Your task to perform on an android device: Open Chrome and go to settings Image 0: 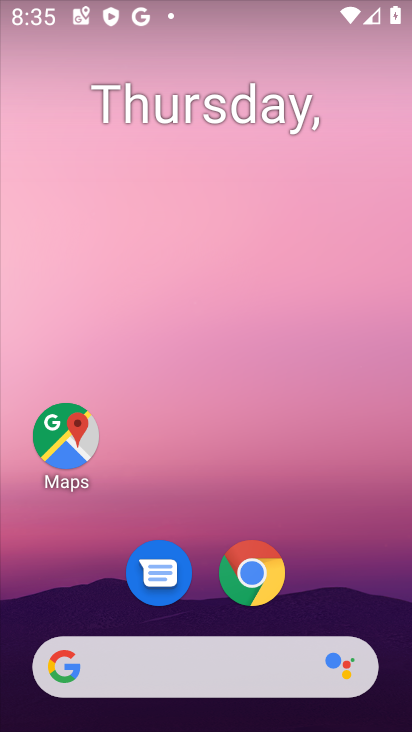
Step 0: drag from (333, 599) to (305, 178)
Your task to perform on an android device: Open Chrome and go to settings Image 1: 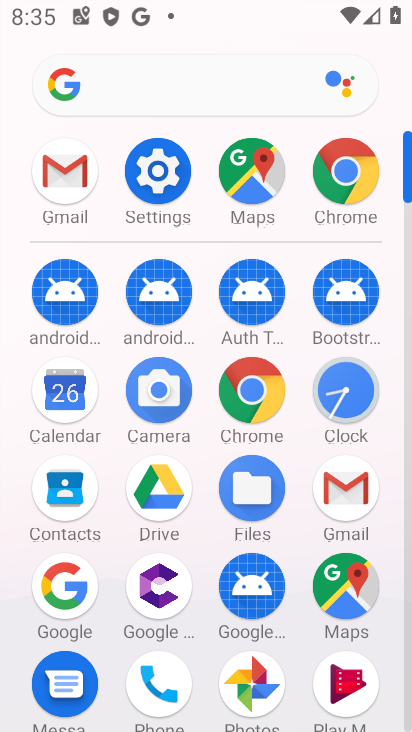
Step 1: click (163, 195)
Your task to perform on an android device: Open Chrome and go to settings Image 2: 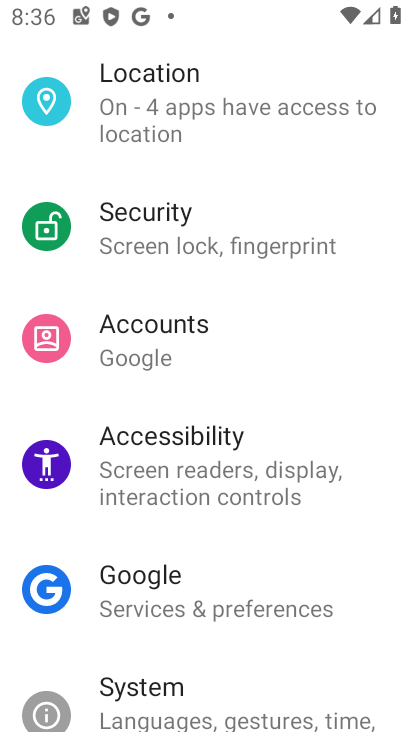
Step 2: drag from (199, 176) to (265, 680)
Your task to perform on an android device: Open Chrome and go to settings Image 3: 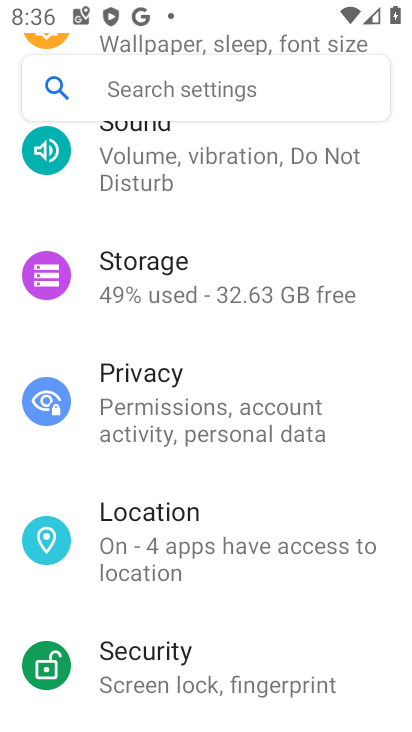
Step 3: drag from (245, 228) to (267, 648)
Your task to perform on an android device: Open Chrome and go to settings Image 4: 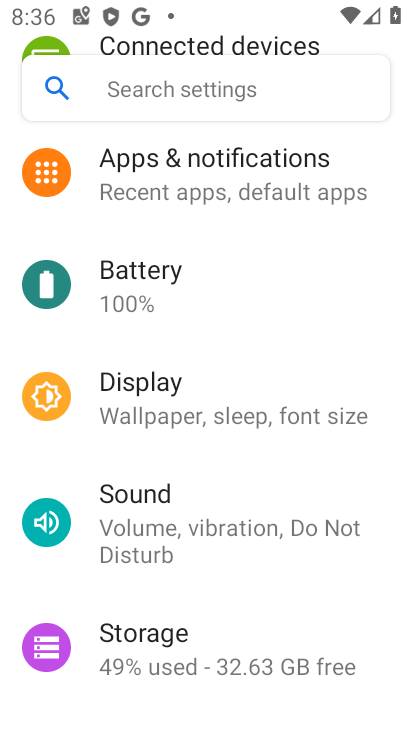
Step 4: drag from (266, 281) to (254, 636)
Your task to perform on an android device: Open Chrome and go to settings Image 5: 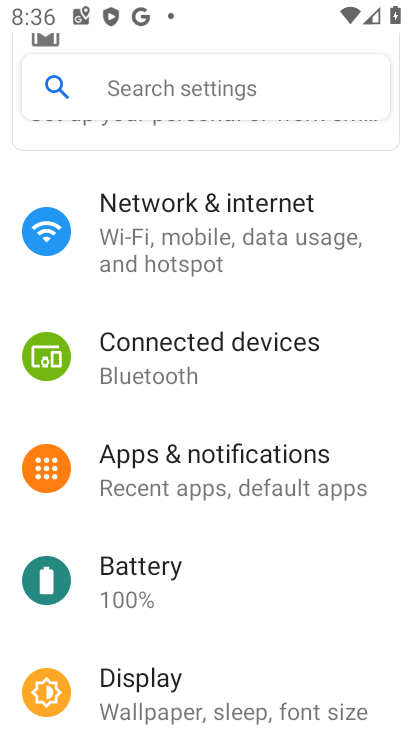
Step 5: drag from (253, 296) to (256, 614)
Your task to perform on an android device: Open Chrome and go to settings Image 6: 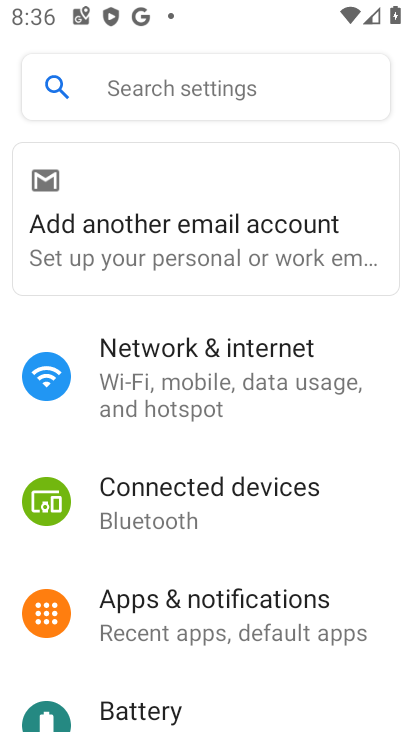
Step 6: press home button
Your task to perform on an android device: Open Chrome and go to settings Image 7: 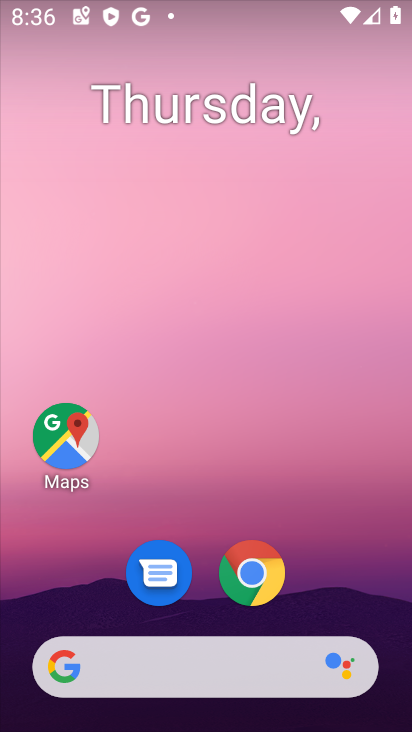
Step 7: drag from (367, 620) to (371, 197)
Your task to perform on an android device: Open Chrome and go to settings Image 8: 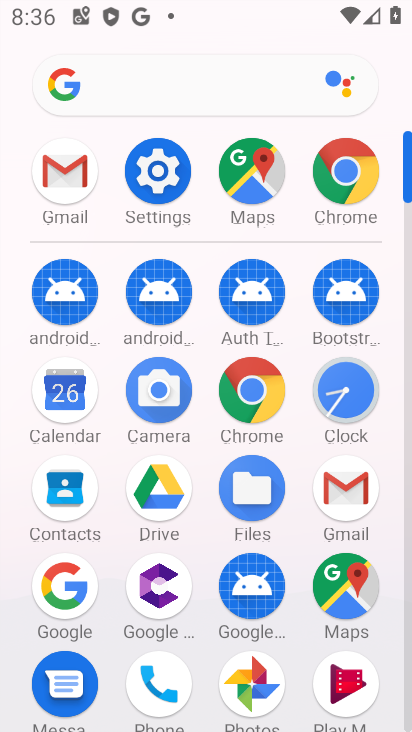
Step 8: click (349, 196)
Your task to perform on an android device: Open Chrome and go to settings Image 9: 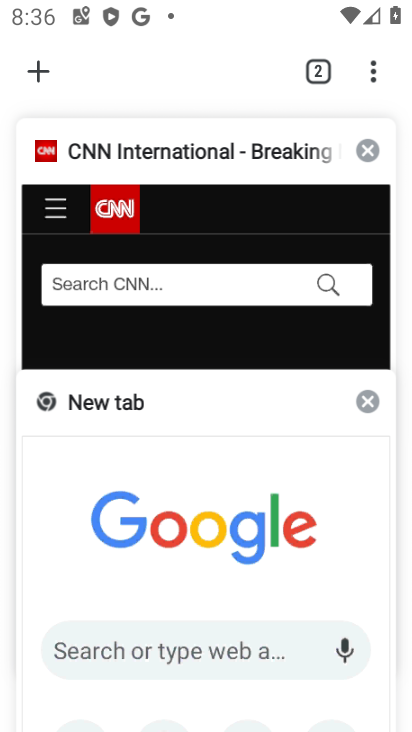
Step 9: click (43, 76)
Your task to perform on an android device: Open Chrome and go to settings Image 10: 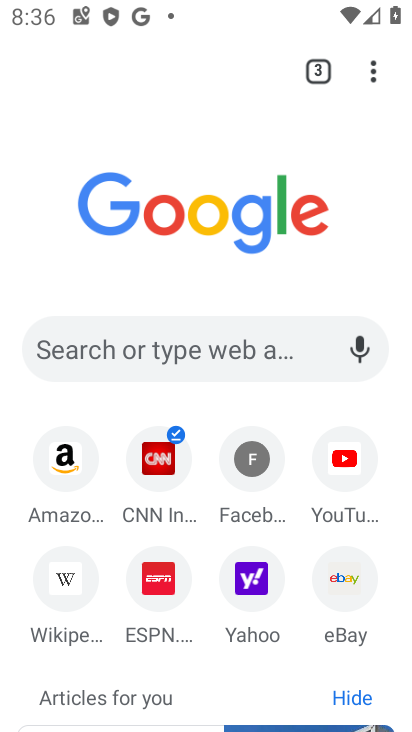
Step 10: task complete